Your task to perform on an android device: open a new tab in the chrome app Image 0: 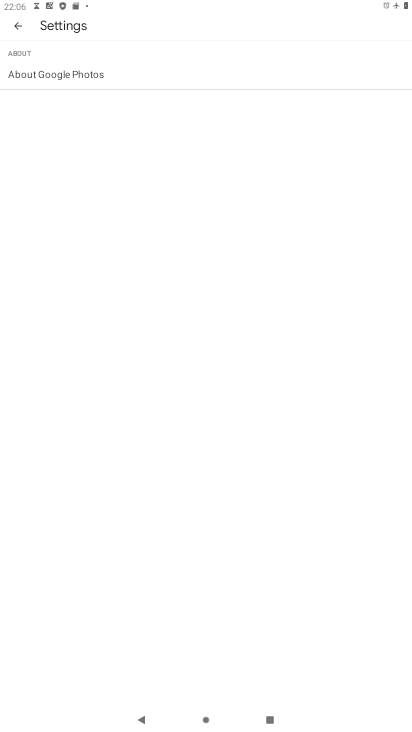
Step 0: press home button
Your task to perform on an android device: open a new tab in the chrome app Image 1: 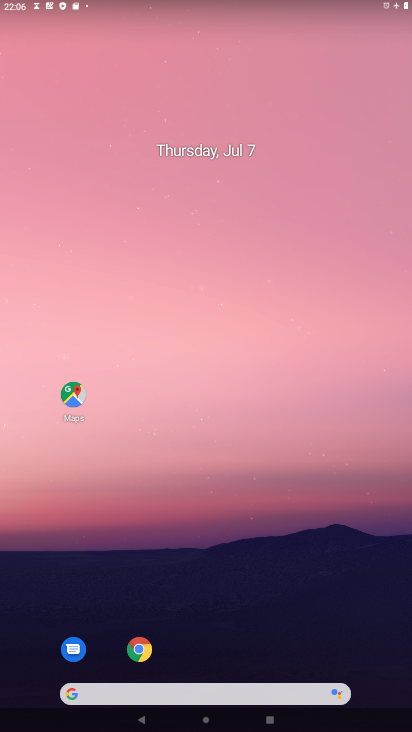
Step 1: click (136, 646)
Your task to perform on an android device: open a new tab in the chrome app Image 2: 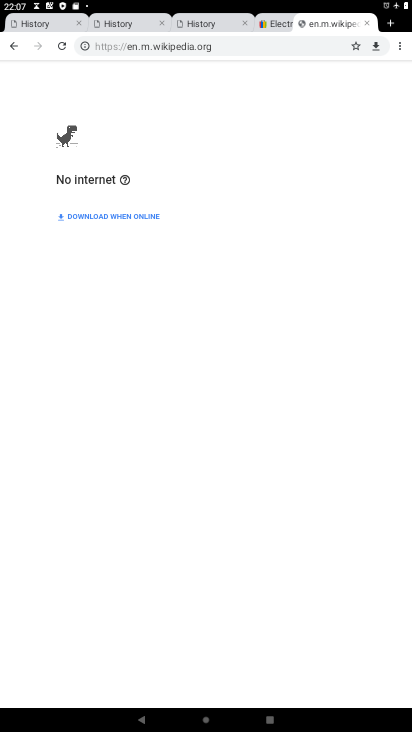
Step 2: click (402, 45)
Your task to perform on an android device: open a new tab in the chrome app Image 3: 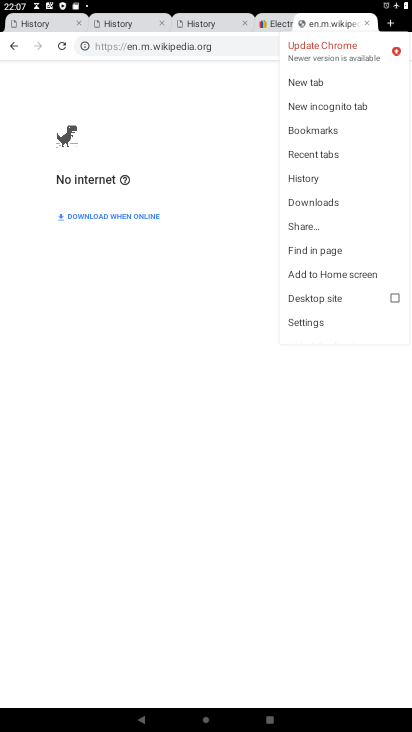
Step 3: click (303, 83)
Your task to perform on an android device: open a new tab in the chrome app Image 4: 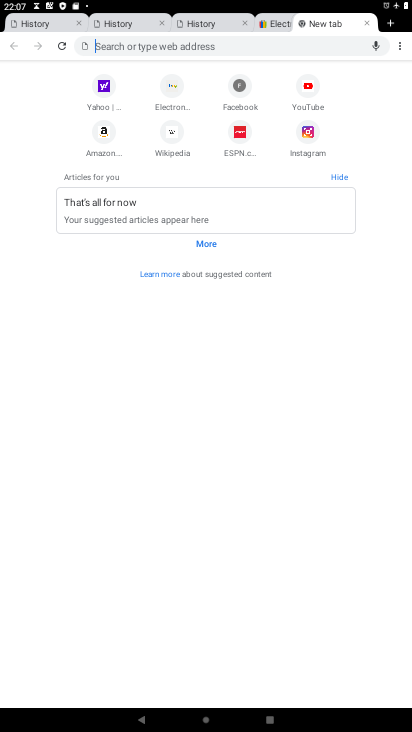
Step 4: task complete